Your task to perform on an android device: turn off translation in the chrome app Image 0: 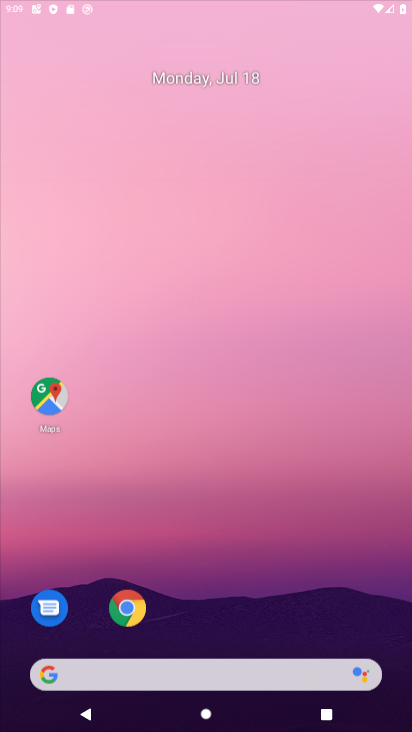
Step 0: press home button
Your task to perform on an android device: turn off translation in the chrome app Image 1: 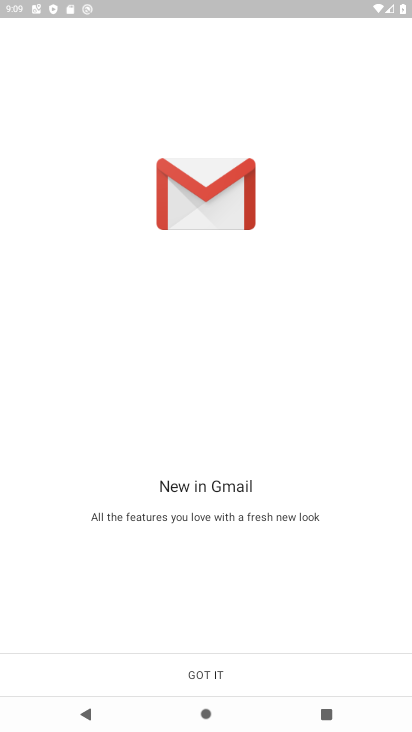
Step 1: drag from (241, 213) to (249, 54)
Your task to perform on an android device: turn off translation in the chrome app Image 2: 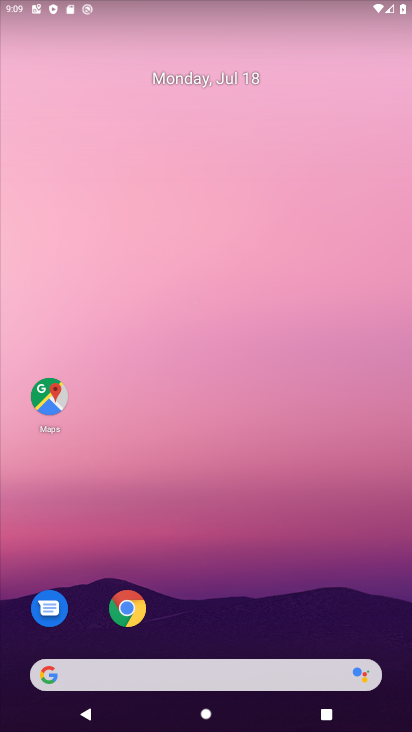
Step 2: click (128, 602)
Your task to perform on an android device: turn off translation in the chrome app Image 3: 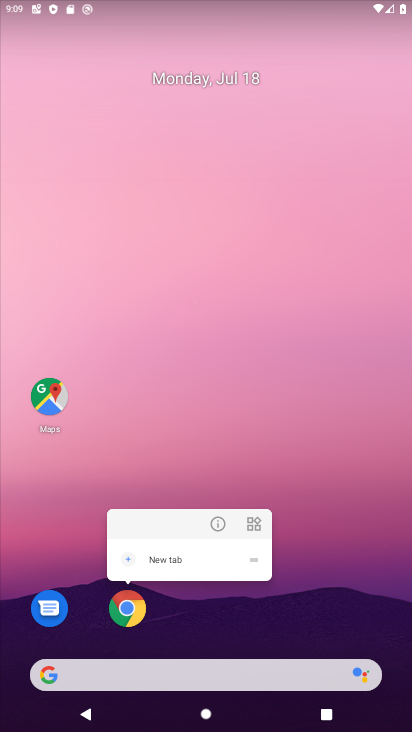
Step 3: click (126, 602)
Your task to perform on an android device: turn off translation in the chrome app Image 4: 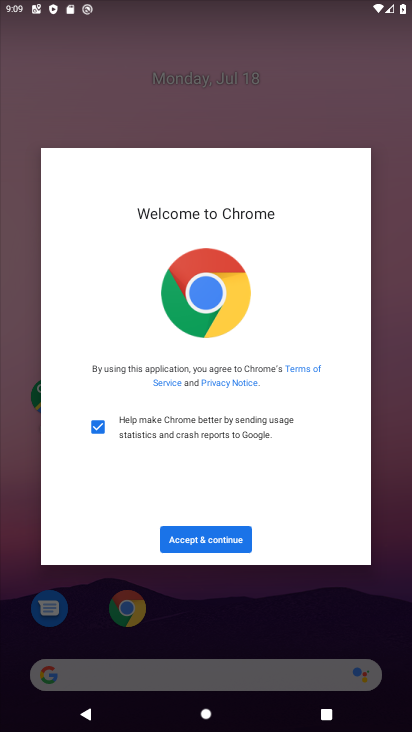
Step 4: click (202, 536)
Your task to perform on an android device: turn off translation in the chrome app Image 5: 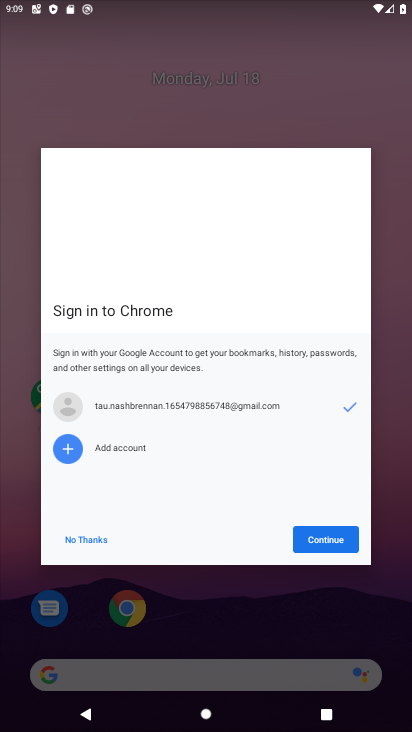
Step 5: click (326, 539)
Your task to perform on an android device: turn off translation in the chrome app Image 6: 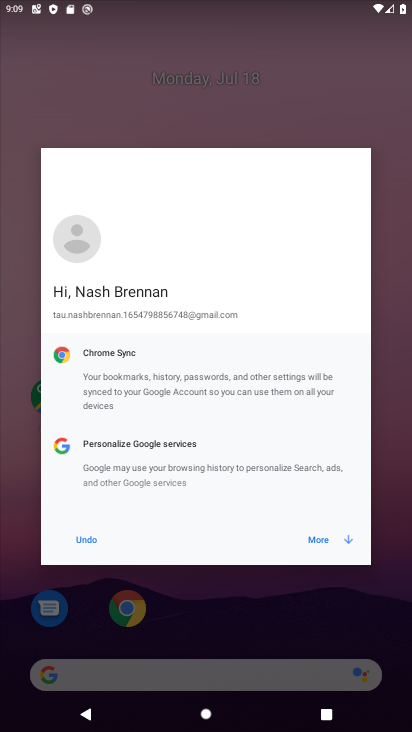
Step 6: click (326, 539)
Your task to perform on an android device: turn off translation in the chrome app Image 7: 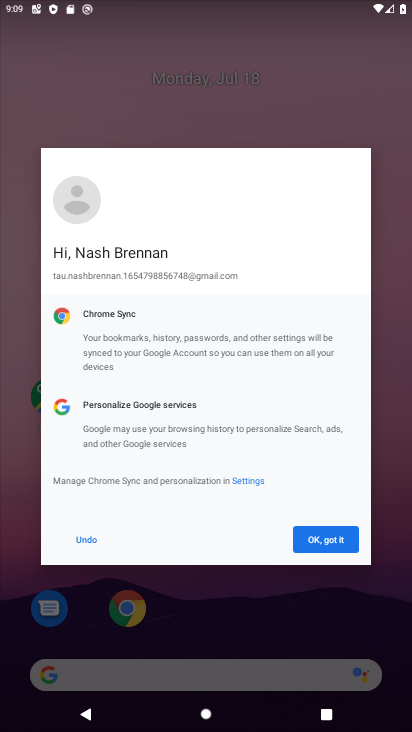
Step 7: click (326, 539)
Your task to perform on an android device: turn off translation in the chrome app Image 8: 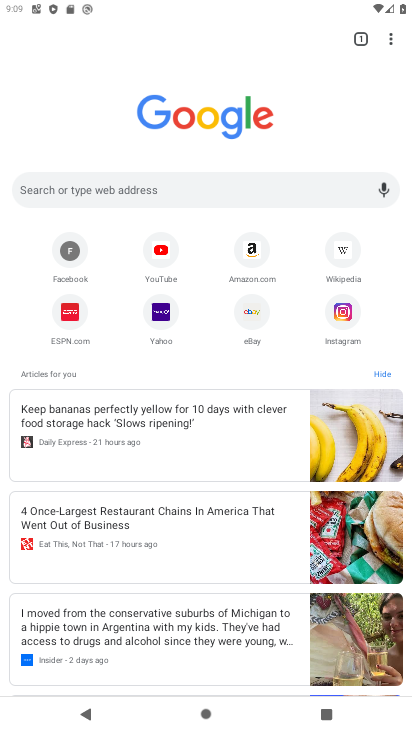
Step 8: click (391, 36)
Your task to perform on an android device: turn off translation in the chrome app Image 9: 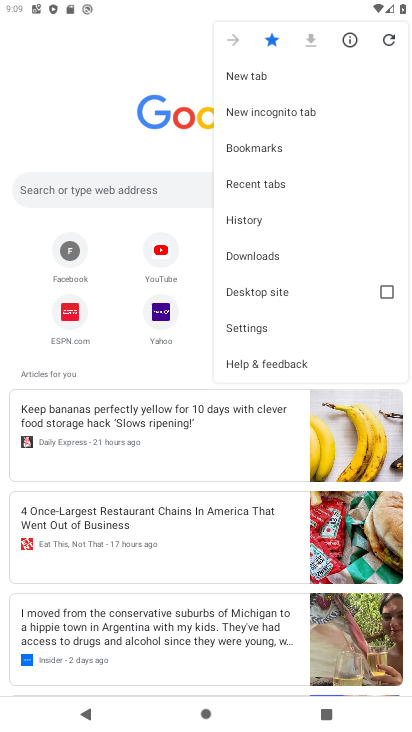
Step 9: click (270, 326)
Your task to perform on an android device: turn off translation in the chrome app Image 10: 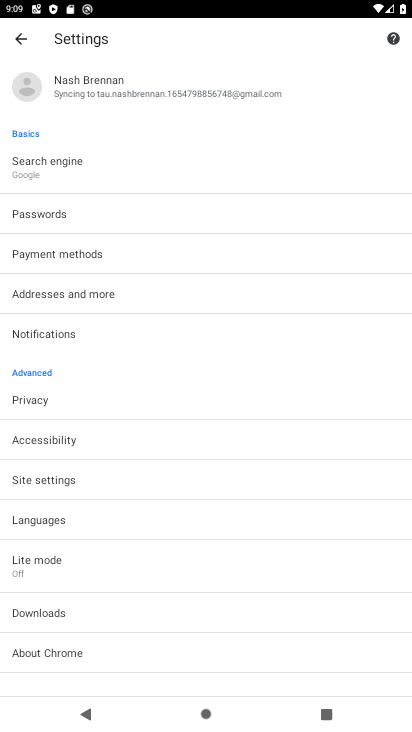
Step 10: click (82, 521)
Your task to perform on an android device: turn off translation in the chrome app Image 11: 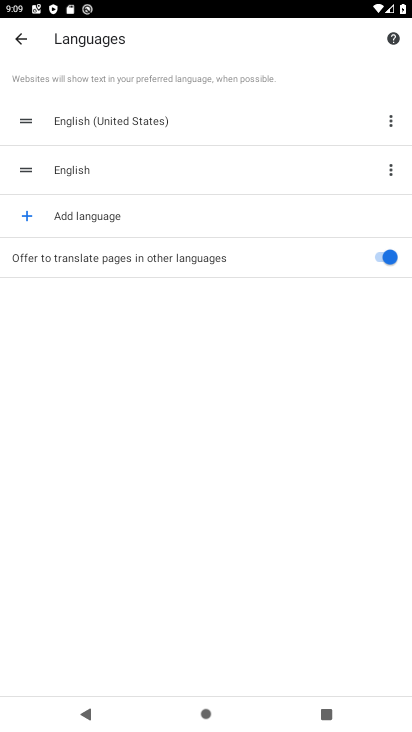
Step 11: click (386, 256)
Your task to perform on an android device: turn off translation in the chrome app Image 12: 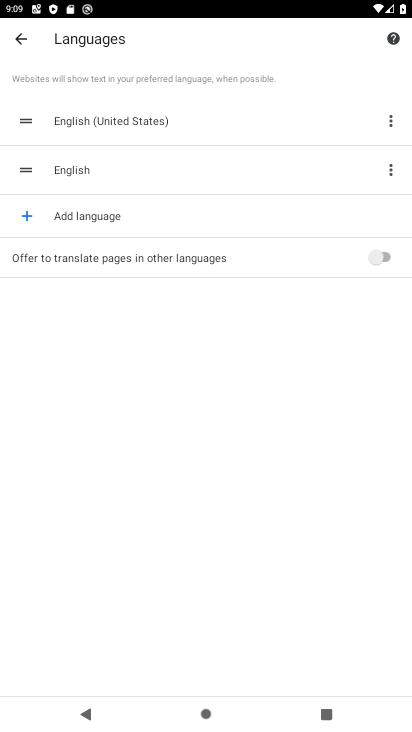
Step 12: task complete